Your task to perform on an android device: open chrome privacy settings Image 0: 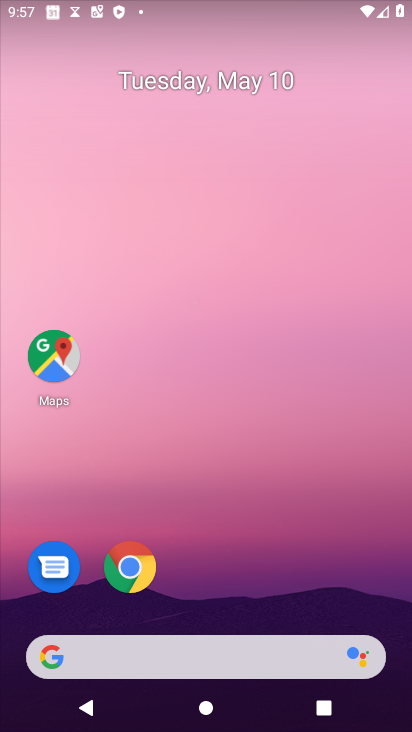
Step 0: drag from (1, 554) to (258, 192)
Your task to perform on an android device: open chrome privacy settings Image 1: 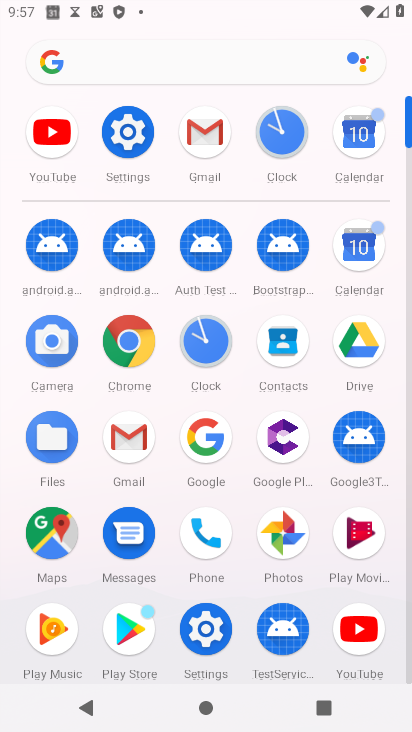
Step 1: click (130, 330)
Your task to perform on an android device: open chrome privacy settings Image 2: 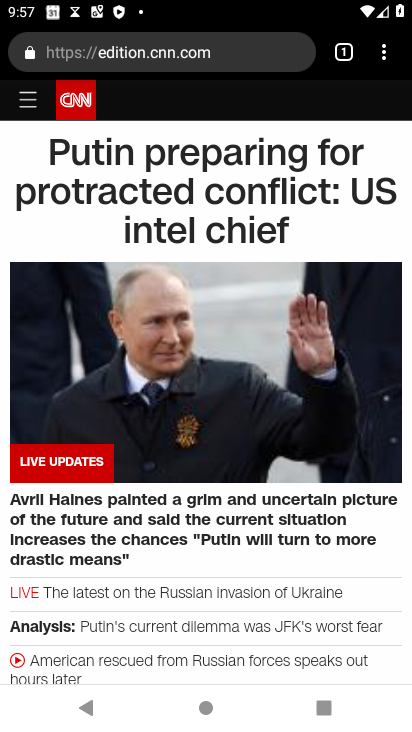
Step 2: click (370, 49)
Your task to perform on an android device: open chrome privacy settings Image 3: 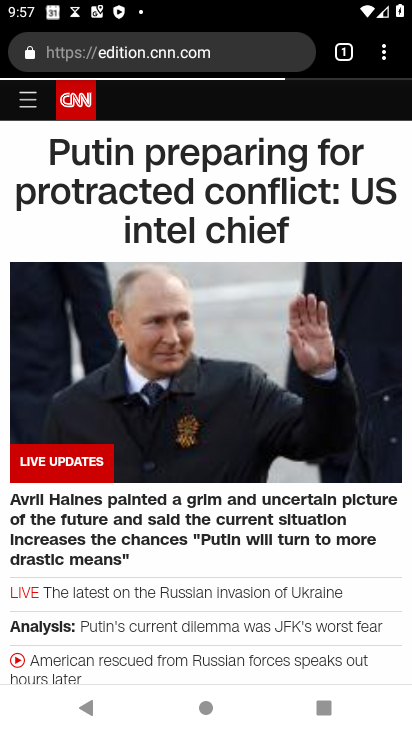
Step 3: click (374, 58)
Your task to perform on an android device: open chrome privacy settings Image 4: 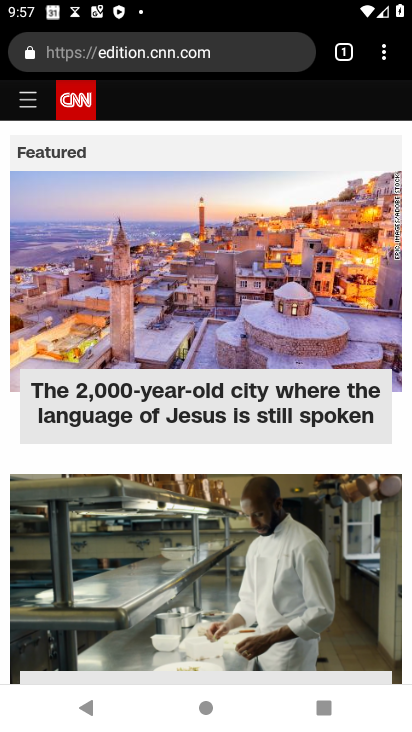
Step 4: click (374, 58)
Your task to perform on an android device: open chrome privacy settings Image 5: 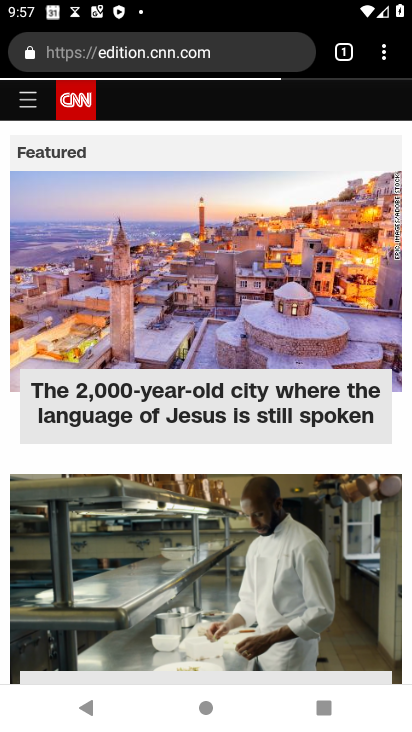
Step 5: click (374, 42)
Your task to perform on an android device: open chrome privacy settings Image 6: 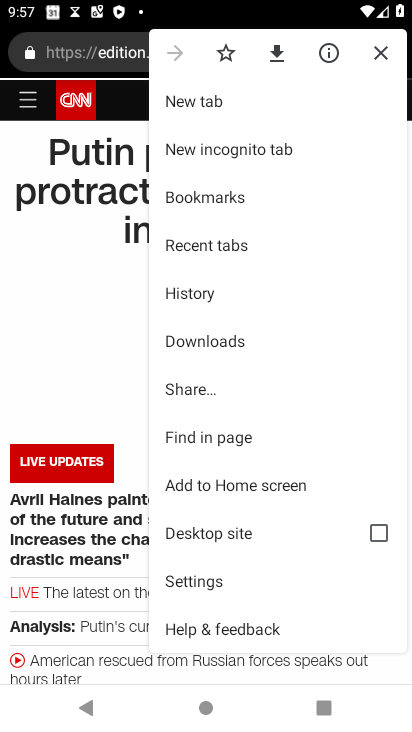
Step 6: click (167, 574)
Your task to perform on an android device: open chrome privacy settings Image 7: 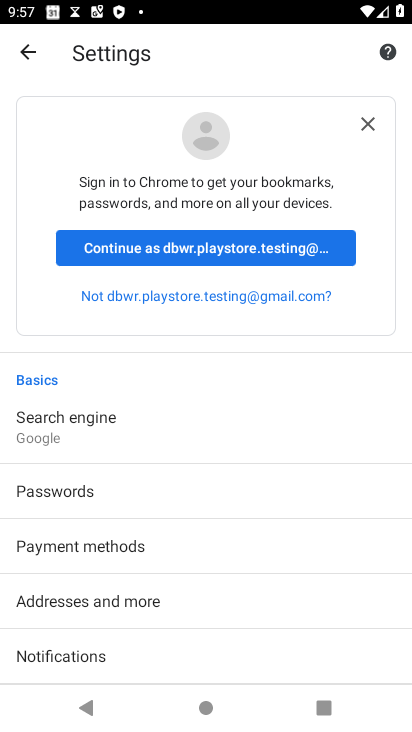
Step 7: drag from (37, 650) to (188, 278)
Your task to perform on an android device: open chrome privacy settings Image 8: 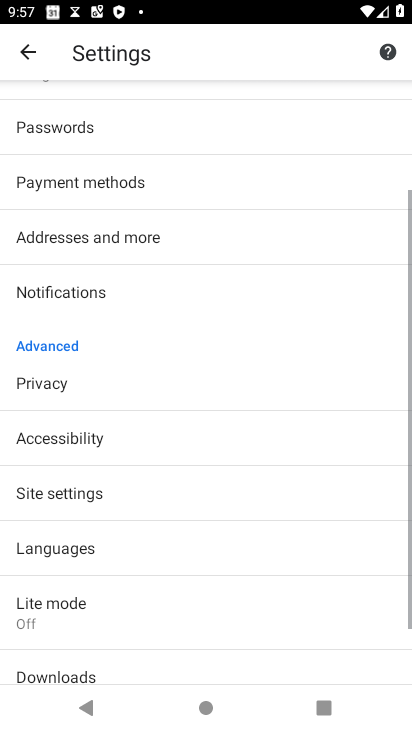
Step 8: click (67, 375)
Your task to perform on an android device: open chrome privacy settings Image 9: 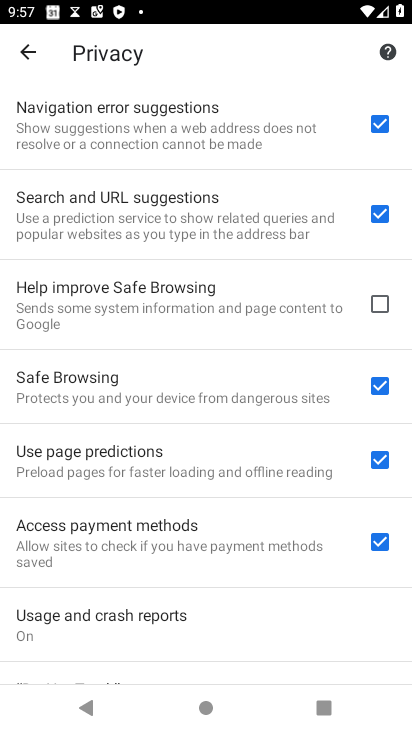
Step 9: task complete